Your task to perform on an android device: Open the phone app and click the voicemail tab. Image 0: 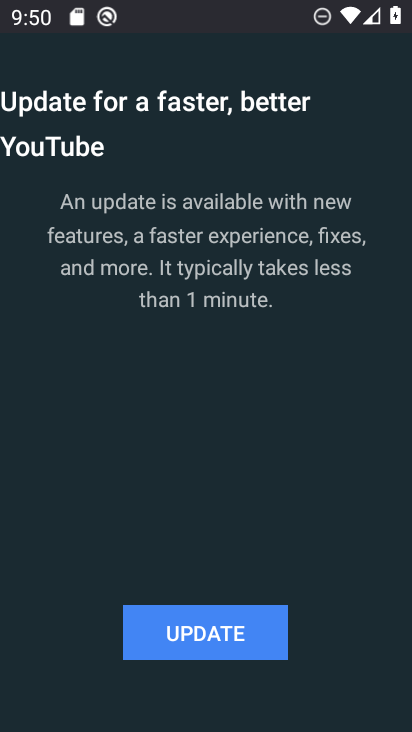
Step 0: press back button
Your task to perform on an android device: Open the phone app and click the voicemail tab. Image 1: 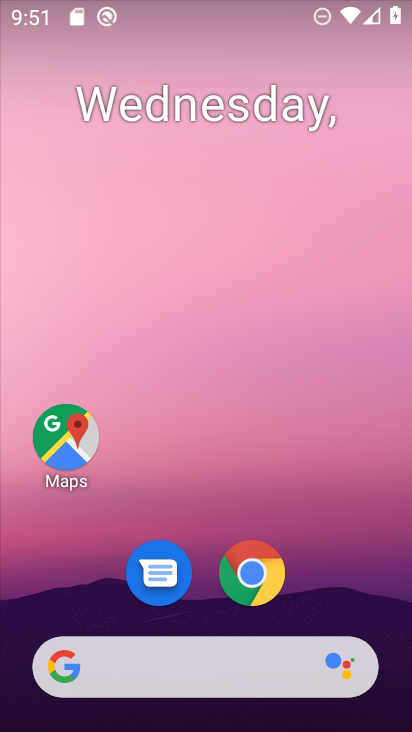
Step 1: click (375, 183)
Your task to perform on an android device: Open the phone app and click the voicemail tab. Image 2: 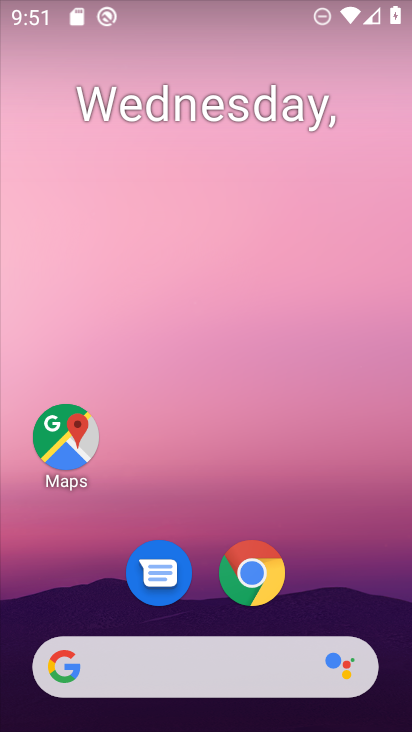
Step 2: drag from (372, 609) to (344, 133)
Your task to perform on an android device: Open the phone app and click the voicemail tab. Image 3: 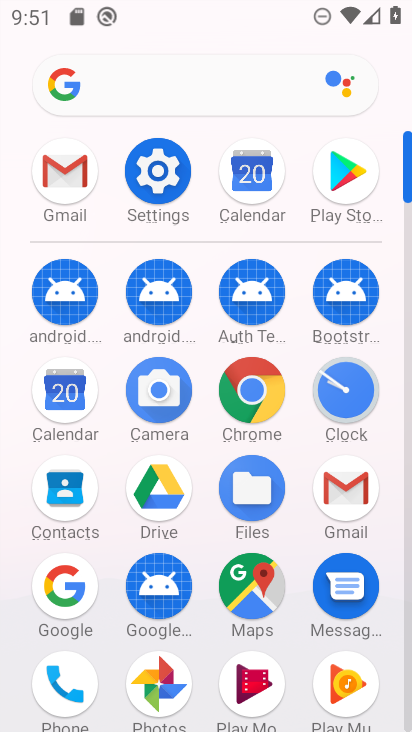
Step 3: click (67, 680)
Your task to perform on an android device: Open the phone app and click the voicemail tab. Image 4: 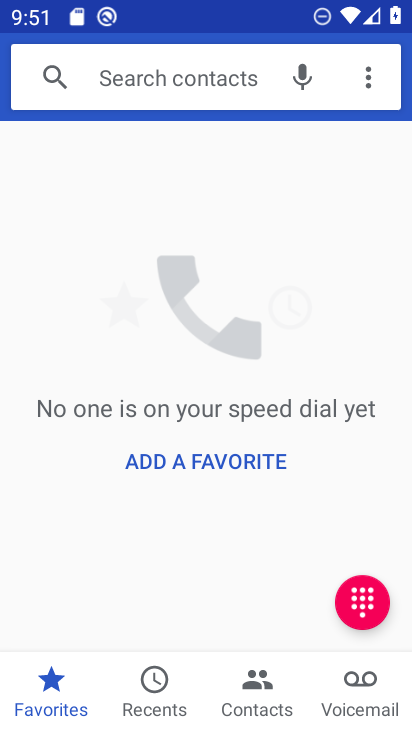
Step 4: click (363, 688)
Your task to perform on an android device: Open the phone app and click the voicemail tab. Image 5: 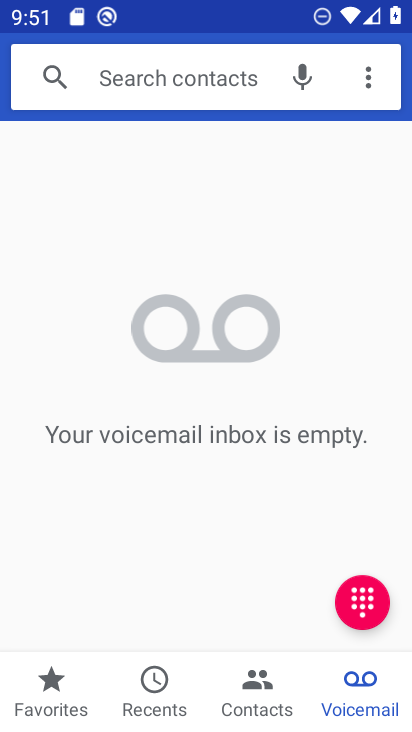
Step 5: task complete